Your task to perform on an android device: Search for sushi restaurants on Maps Image 0: 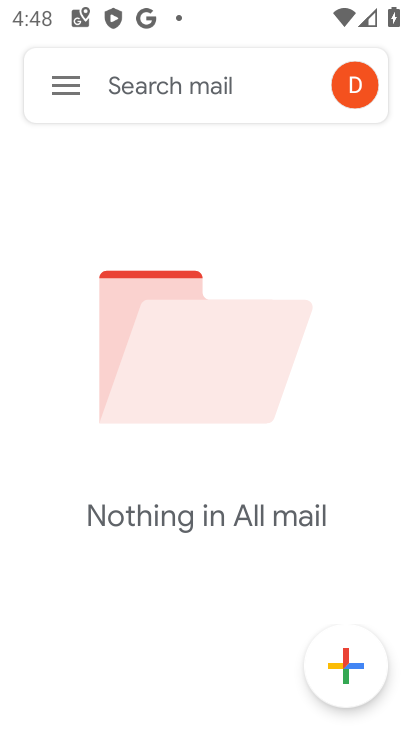
Step 0: press back button
Your task to perform on an android device: Search for sushi restaurants on Maps Image 1: 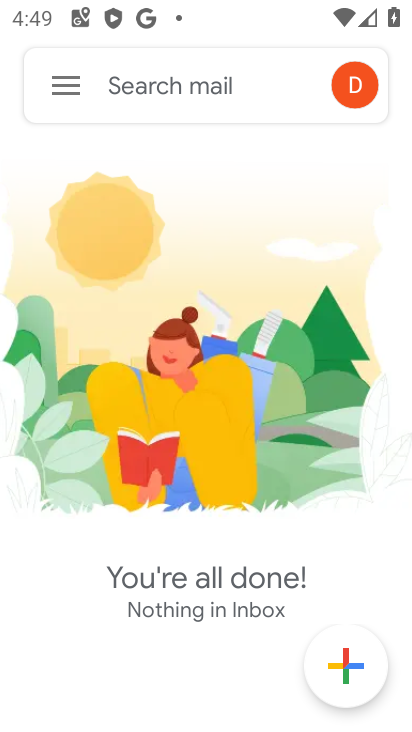
Step 1: press back button
Your task to perform on an android device: Search for sushi restaurants on Maps Image 2: 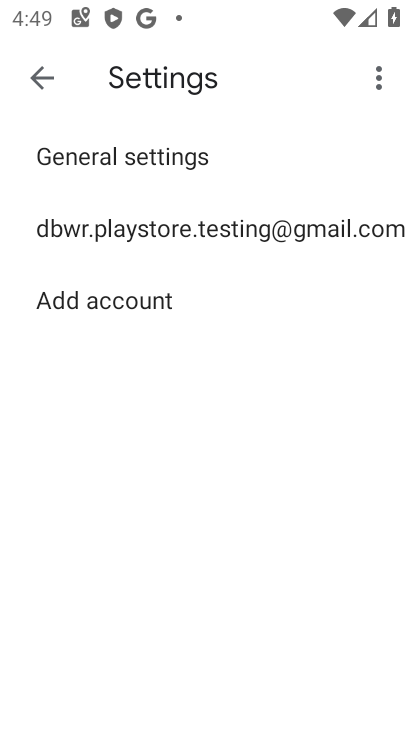
Step 2: press home button
Your task to perform on an android device: Search for sushi restaurants on Maps Image 3: 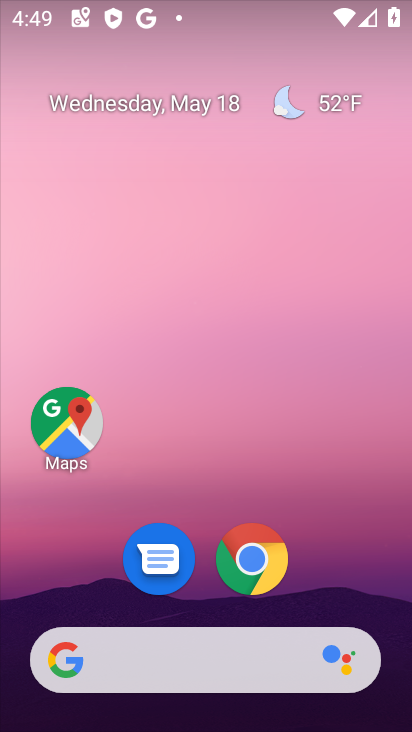
Step 3: click (77, 420)
Your task to perform on an android device: Search for sushi restaurants on Maps Image 4: 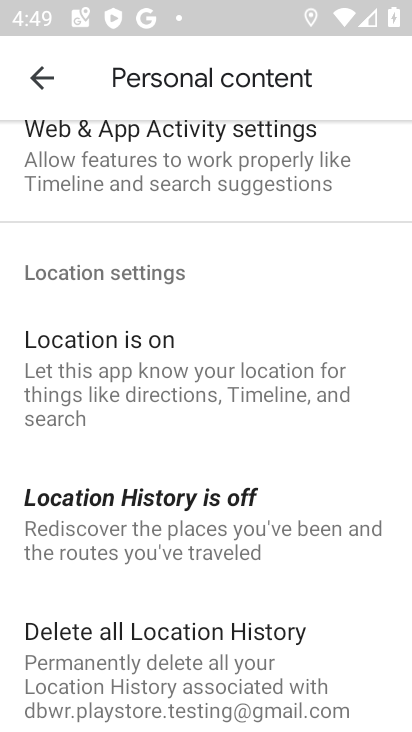
Step 4: click (71, 72)
Your task to perform on an android device: Search for sushi restaurants on Maps Image 5: 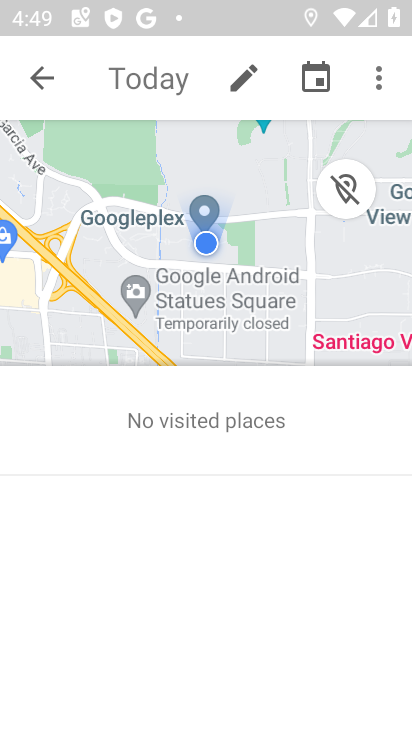
Step 5: click (30, 62)
Your task to perform on an android device: Search for sushi restaurants on Maps Image 6: 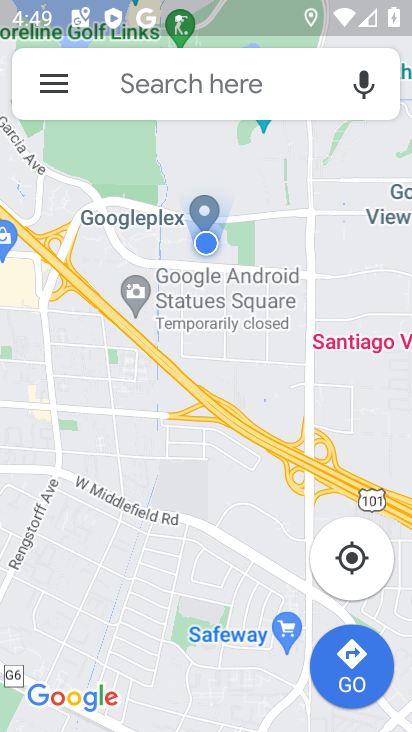
Step 6: click (147, 81)
Your task to perform on an android device: Search for sushi restaurants on Maps Image 7: 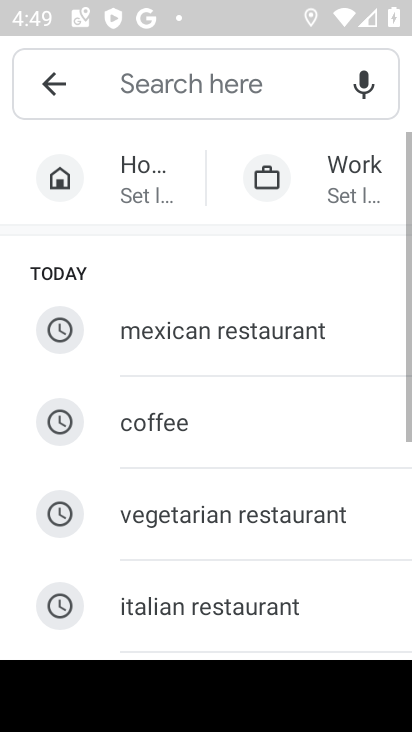
Step 7: drag from (204, 544) to (204, 100)
Your task to perform on an android device: Search for sushi restaurants on Maps Image 8: 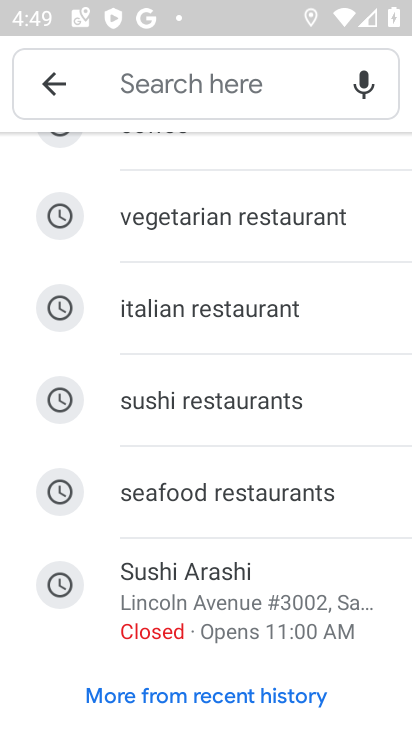
Step 8: click (210, 396)
Your task to perform on an android device: Search for sushi restaurants on Maps Image 9: 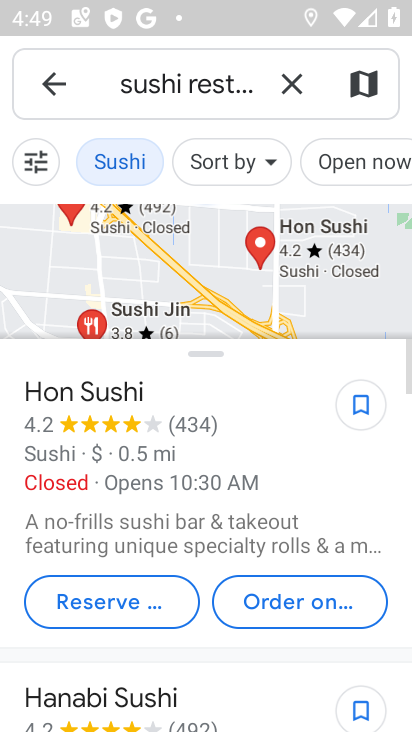
Step 9: task complete